Your task to perform on an android device: check android version Image 0: 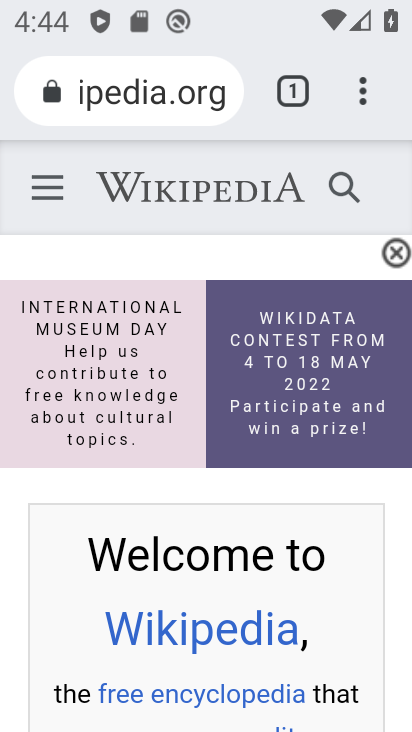
Step 0: press home button
Your task to perform on an android device: check android version Image 1: 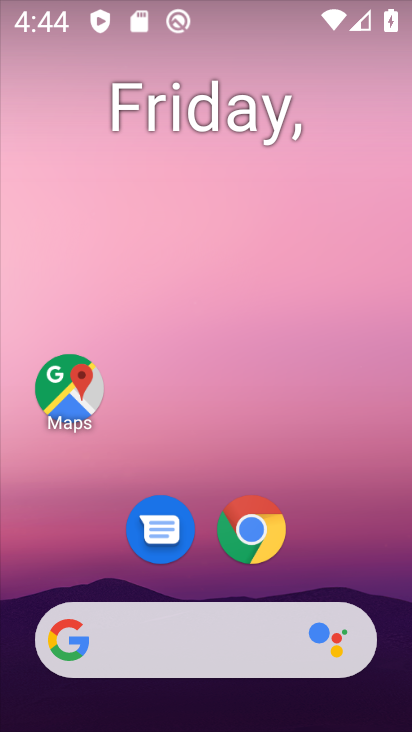
Step 1: drag from (338, 544) to (195, 16)
Your task to perform on an android device: check android version Image 2: 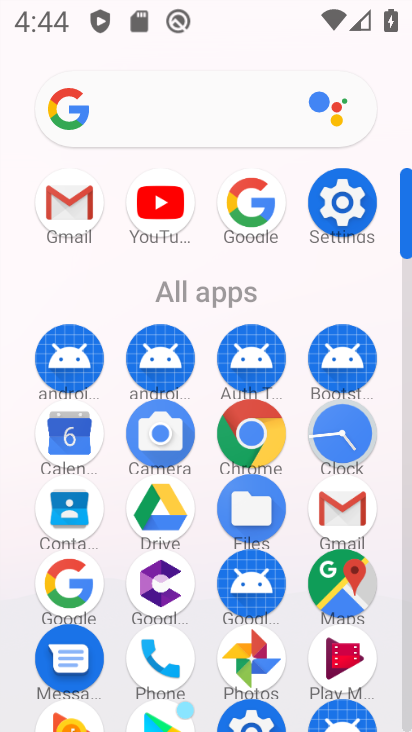
Step 2: click (340, 198)
Your task to perform on an android device: check android version Image 3: 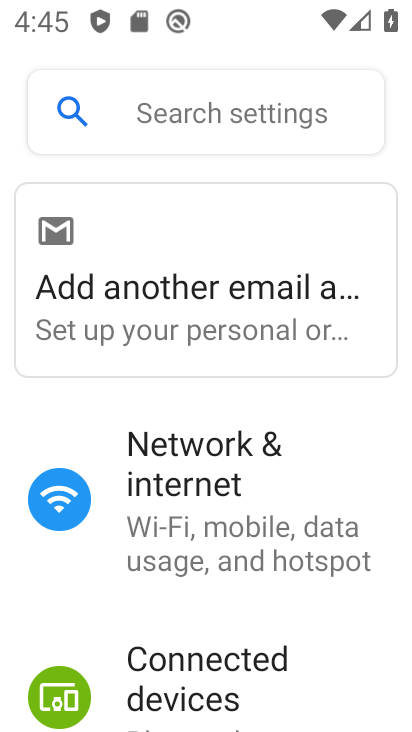
Step 3: drag from (316, 645) to (245, 121)
Your task to perform on an android device: check android version Image 4: 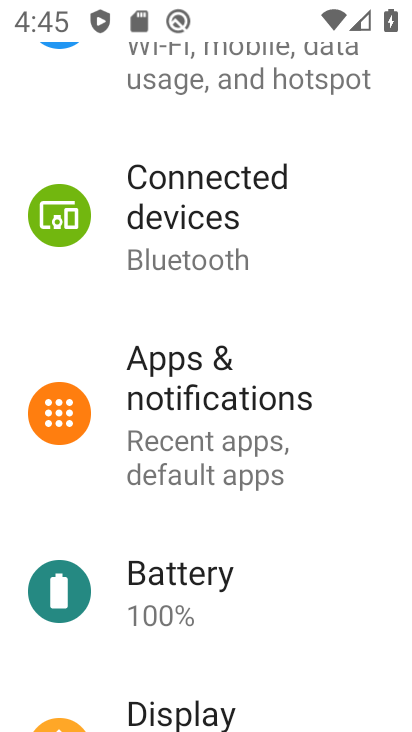
Step 4: drag from (266, 554) to (213, 118)
Your task to perform on an android device: check android version Image 5: 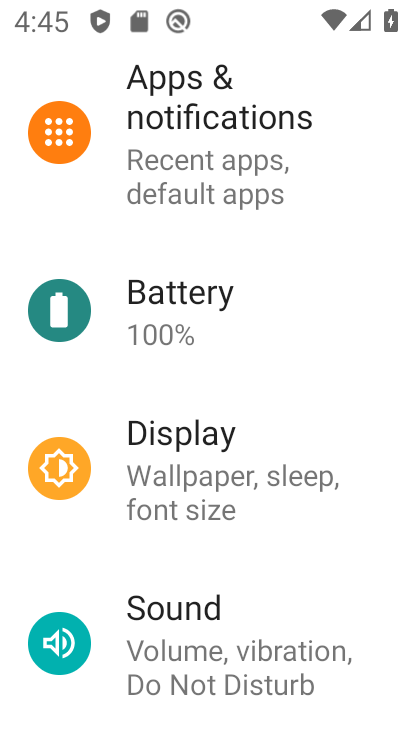
Step 5: drag from (272, 551) to (243, 70)
Your task to perform on an android device: check android version Image 6: 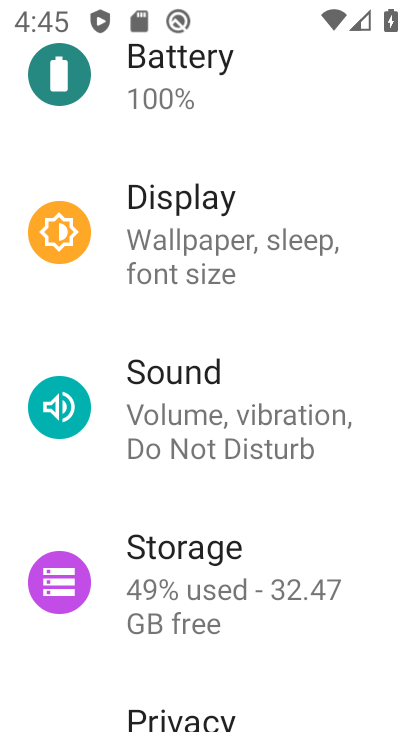
Step 6: drag from (264, 657) to (217, 121)
Your task to perform on an android device: check android version Image 7: 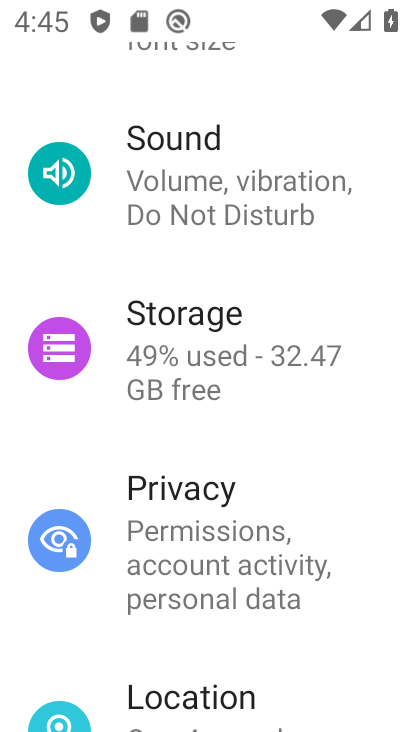
Step 7: drag from (269, 637) to (262, 167)
Your task to perform on an android device: check android version Image 8: 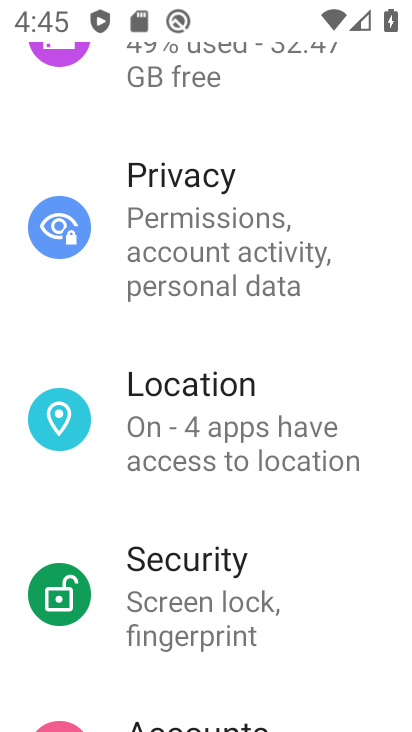
Step 8: drag from (249, 625) to (216, 119)
Your task to perform on an android device: check android version Image 9: 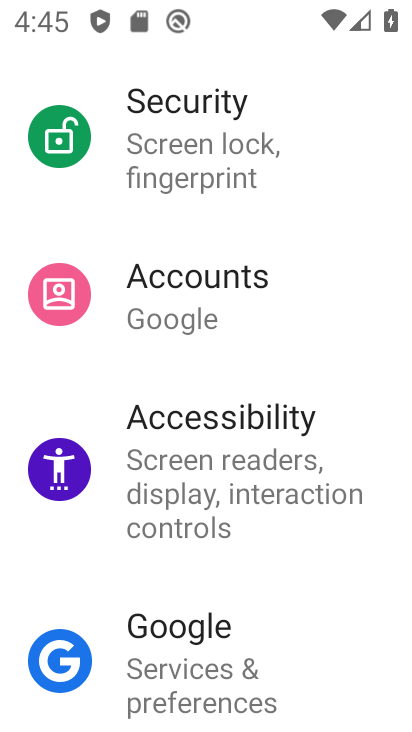
Step 9: drag from (242, 638) to (267, 134)
Your task to perform on an android device: check android version Image 10: 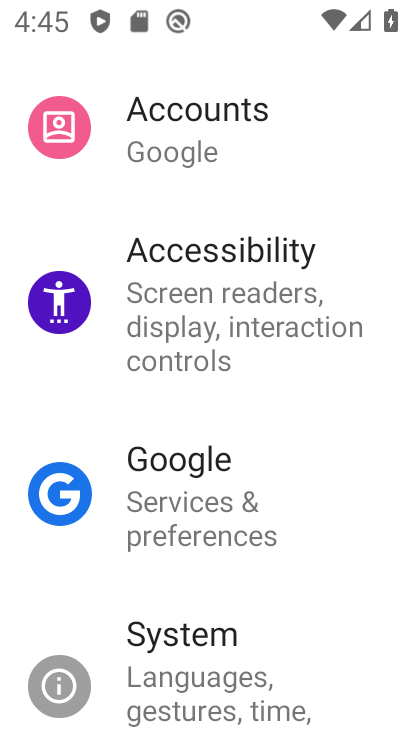
Step 10: drag from (268, 292) to (262, 118)
Your task to perform on an android device: check android version Image 11: 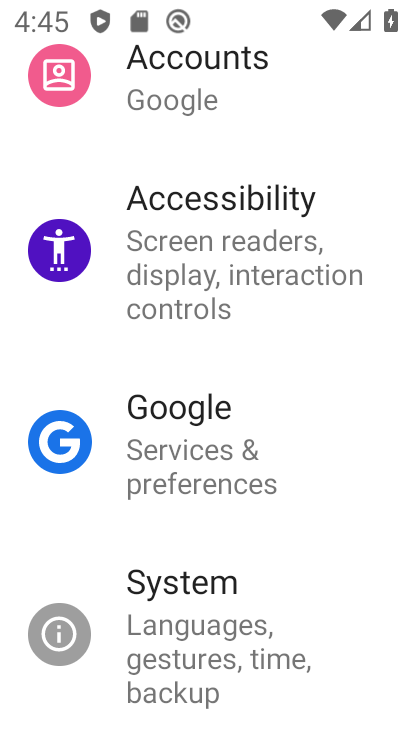
Step 11: drag from (282, 611) to (239, 119)
Your task to perform on an android device: check android version Image 12: 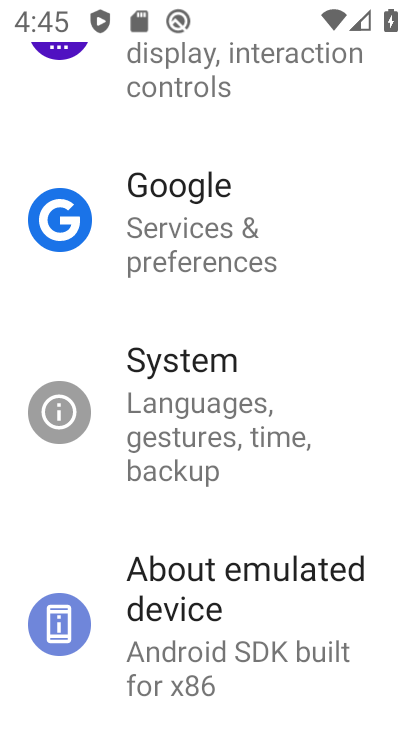
Step 12: click (234, 586)
Your task to perform on an android device: check android version Image 13: 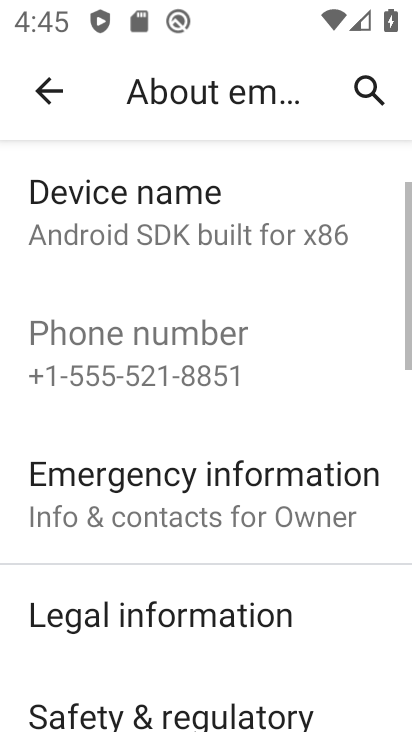
Step 13: drag from (222, 578) to (203, 126)
Your task to perform on an android device: check android version Image 14: 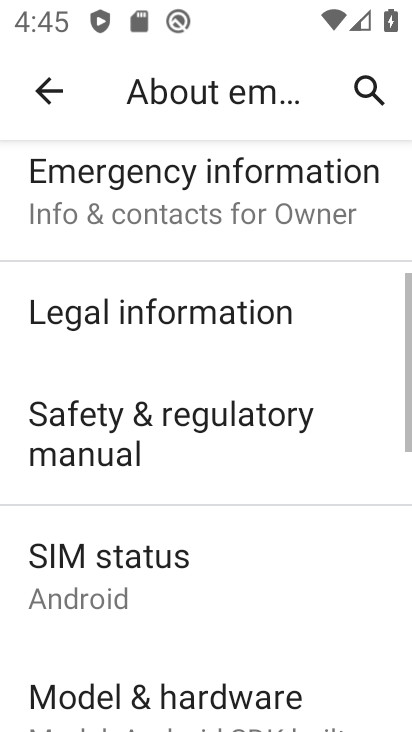
Step 14: drag from (233, 627) to (215, 208)
Your task to perform on an android device: check android version Image 15: 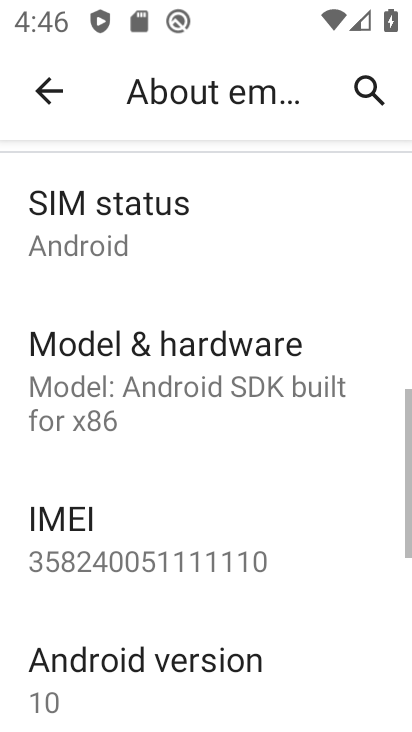
Step 15: click (182, 655)
Your task to perform on an android device: check android version Image 16: 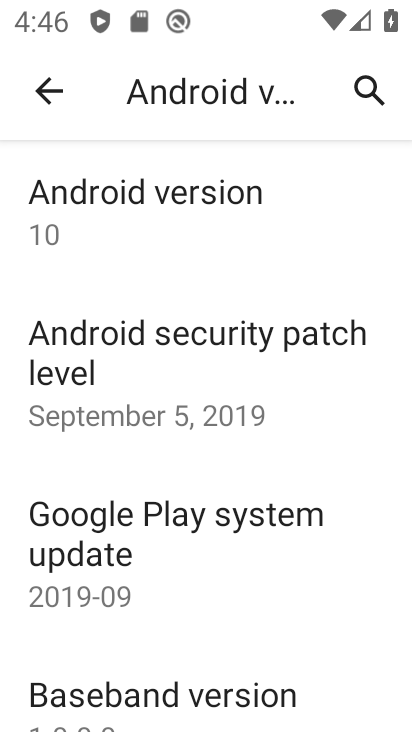
Step 16: click (170, 218)
Your task to perform on an android device: check android version Image 17: 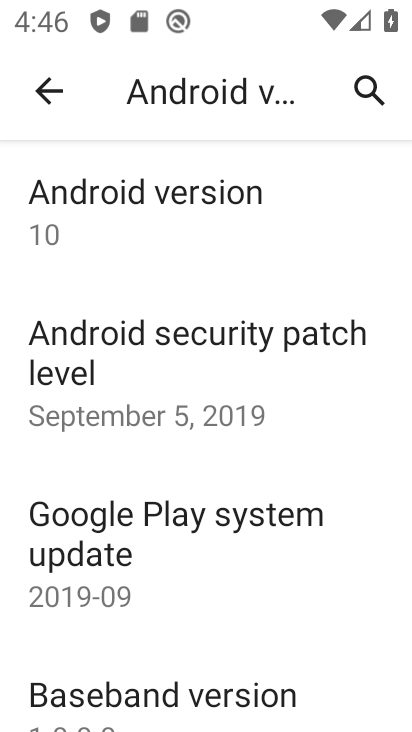
Step 17: task complete